Your task to perform on an android device: What's the weather going to be tomorrow? Image 0: 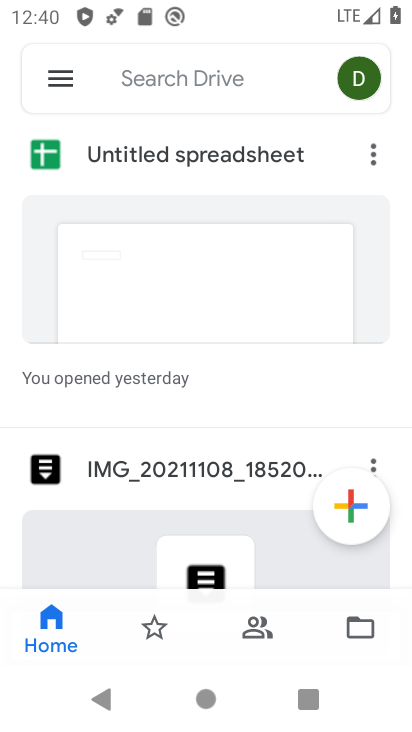
Step 0: press back button
Your task to perform on an android device: What's the weather going to be tomorrow? Image 1: 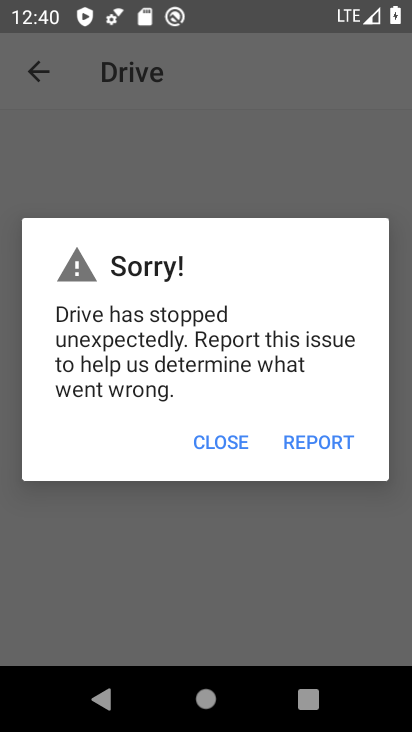
Step 1: press home button
Your task to perform on an android device: What's the weather going to be tomorrow? Image 2: 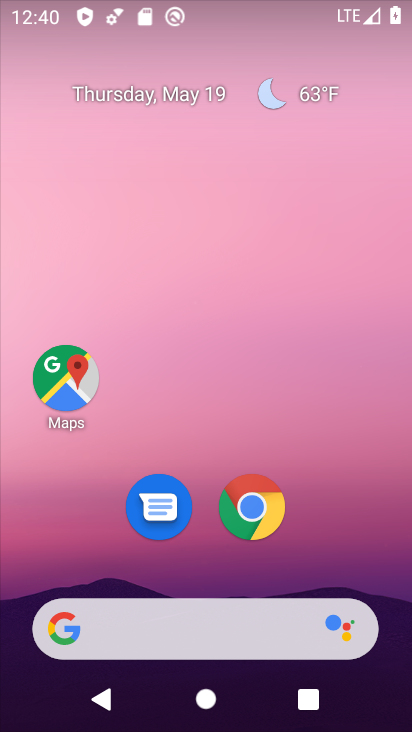
Step 2: drag from (121, 596) to (155, 155)
Your task to perform on an android device: What's the weather going to be tomorrow? Image 3: 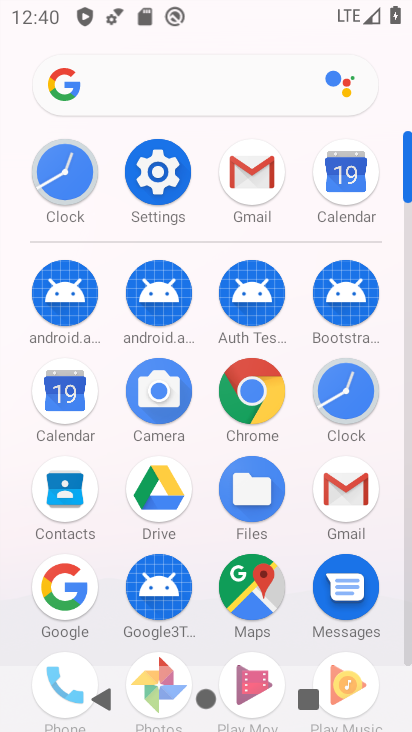
Step 3: drag from (207, 595) to (204, 276)
Your task to perform on an android device: What's the weather going to be tomorrow? Image 4: 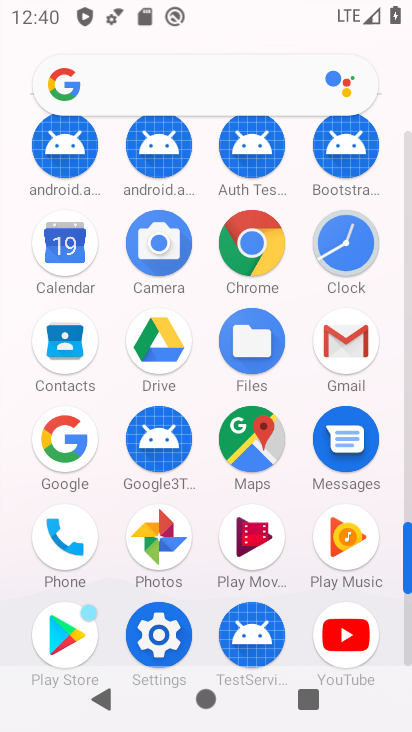
Step 4: click (41, 451)
Your task to perform on an android device: What's the weather going to be tomorrow? Image 5: 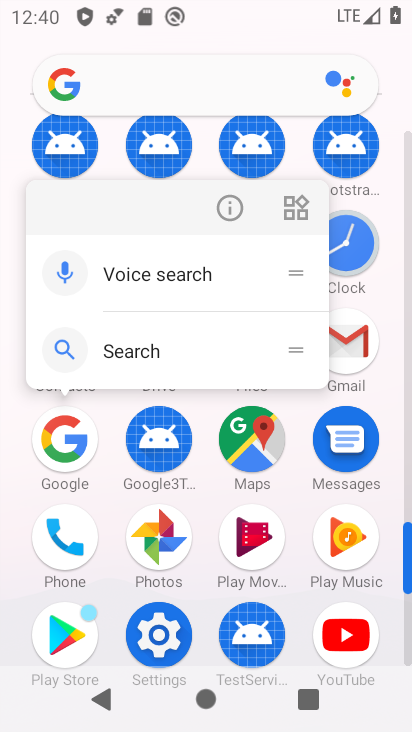
Step 5: click (62, 440)
Your task to perform on an android device: What's the weather going to be tomorrow? Image 6: 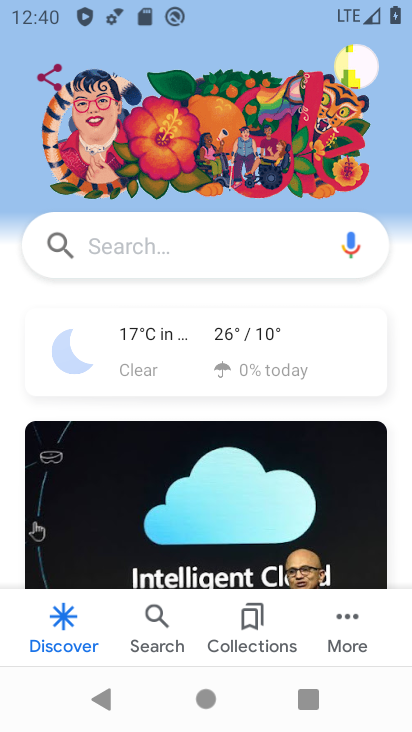
Step 6: click (172, 362)
Your task to perform on an android device: What's the weather going to be tomorrow? Image 7: 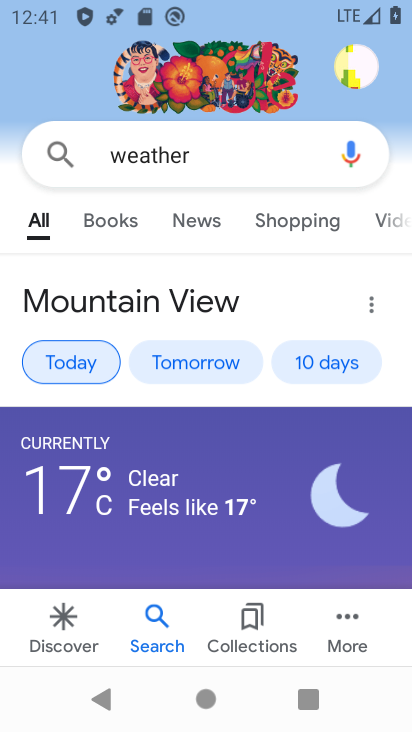
Step 7: click (180, 370)
Your task to perform on an android device: What's the weather going to be tomorrow? Image 8: 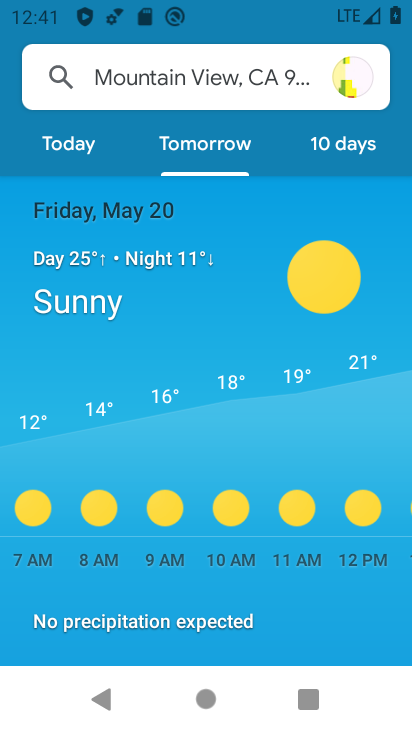
Step 8: task complete